Your task to perform on an android device: turn on translation in the chrome app Image 0: 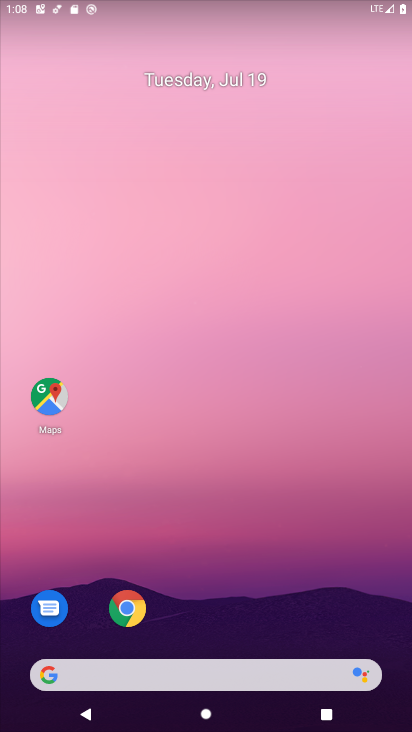
Step 0: drag from (224, 629) to (169, 48)
Your task to perform on an android device: turn on translation in the chrome app Image 1: 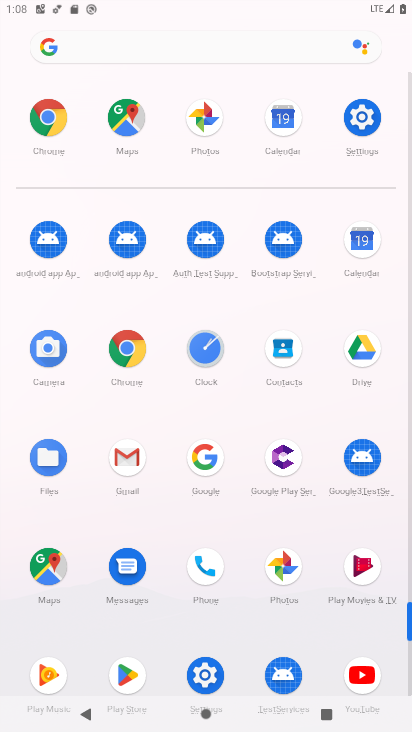
Step 1: click (133, 363)
Your task to perform on an android device: turn on translation in the chrome app Image 2: 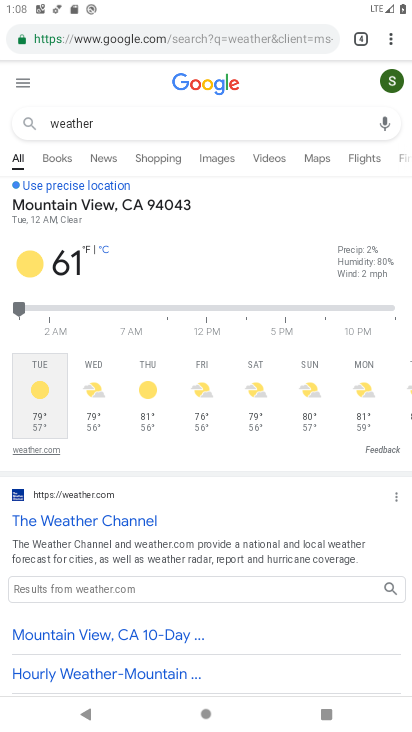
Step 2: click (387, 45)
Your task to perform on an android device: turn on translation in the chrome app Image 3: 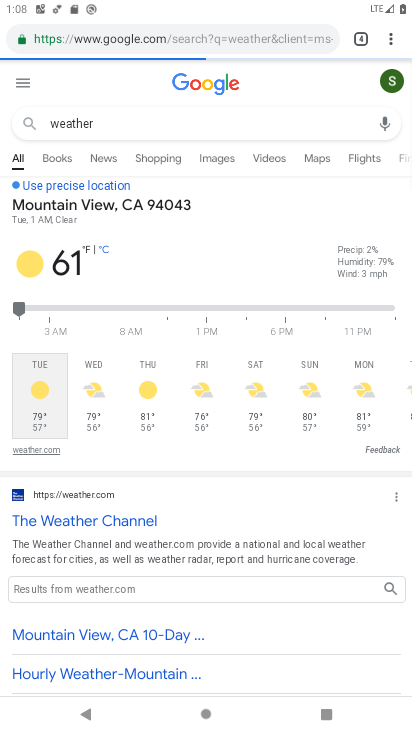
Step 3: click (391, 41)
Your task to perform on an android device: turn on translation in the chrome app Image 4: 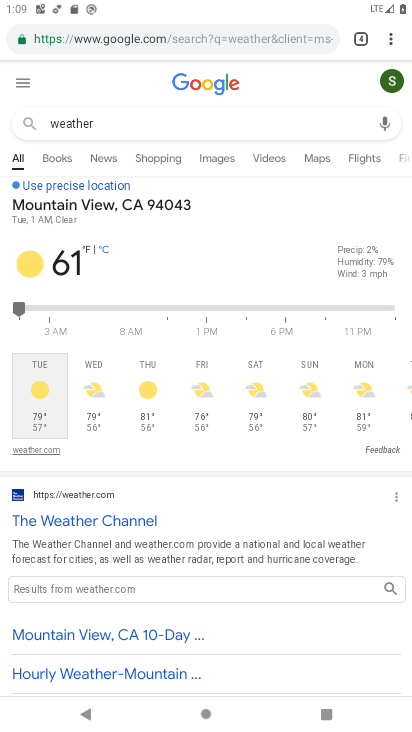
Step 4: click (388, 43)
Your task to perform on an android device: turn on translation in the chrome app Image 5: 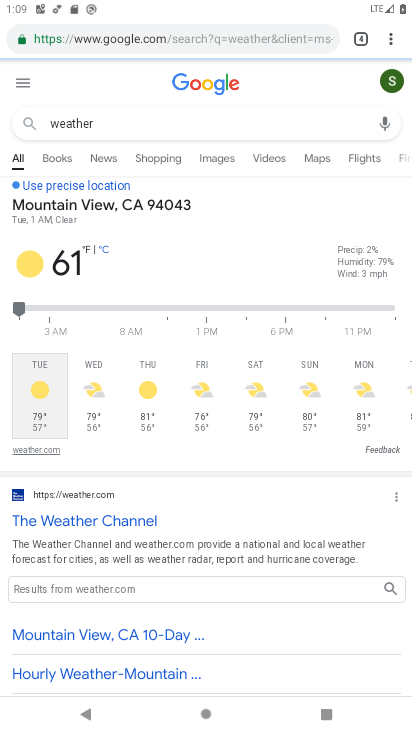
Step 5: click (392, 37)
Your task to perform on an android device: turn on translation in the chrome app Image 6: 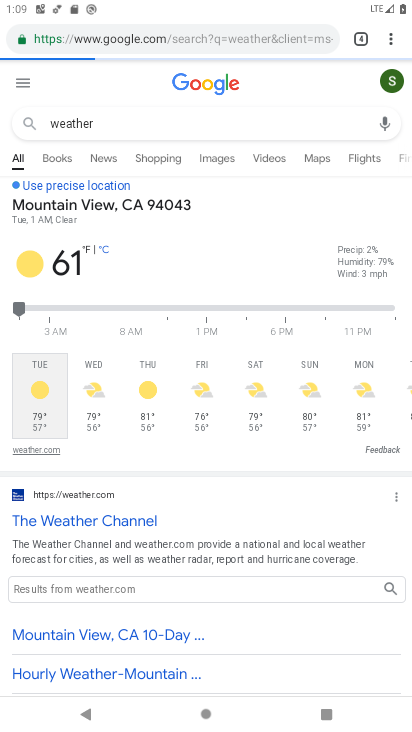
Step 6: click (392, 37)
Your task to perform on an android device: turn on translation in the chrome app Image 7: 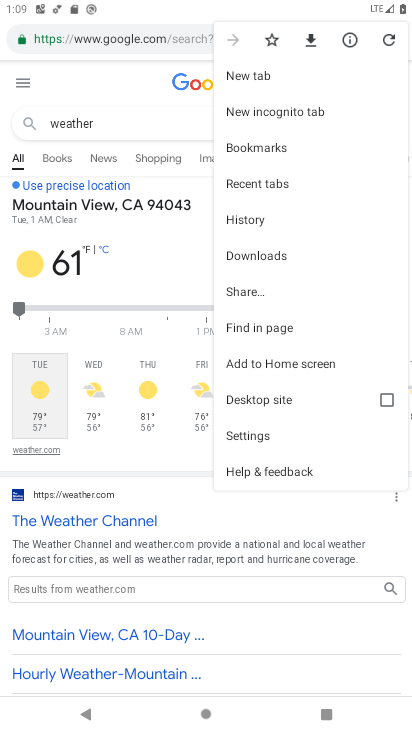
Step 7: click (264, 434)
Your task to perform on an android device: turn on translation in the chrome app Image 8: 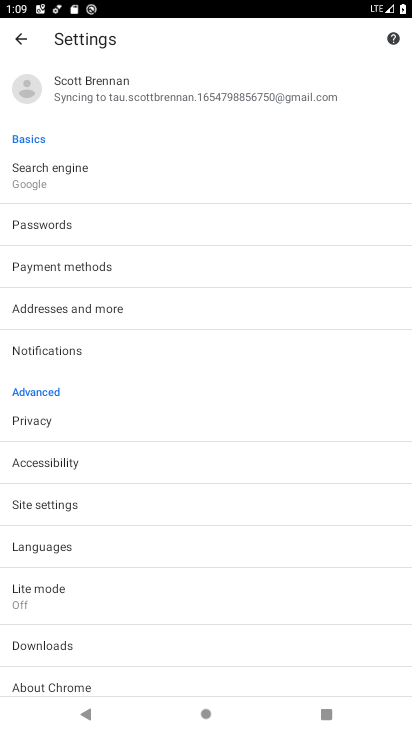
Step 8: click (66, 546)
Your task to perform on an android device: turn on translation in the chrome app Image 9: 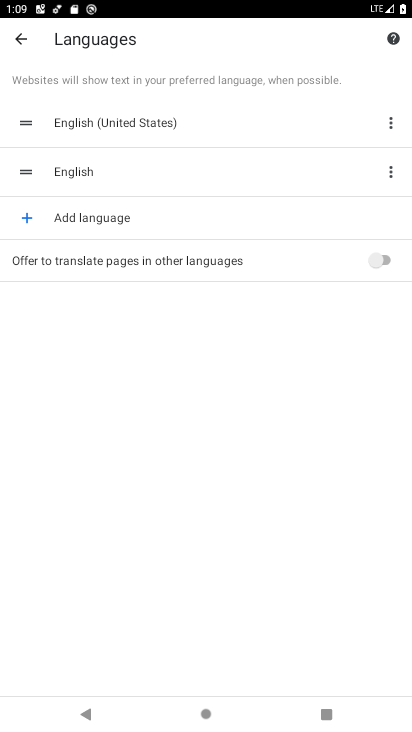
Step 9: click (365, 262)
Your task to perform on an android device: turn on translation in the chrome app Image 10: 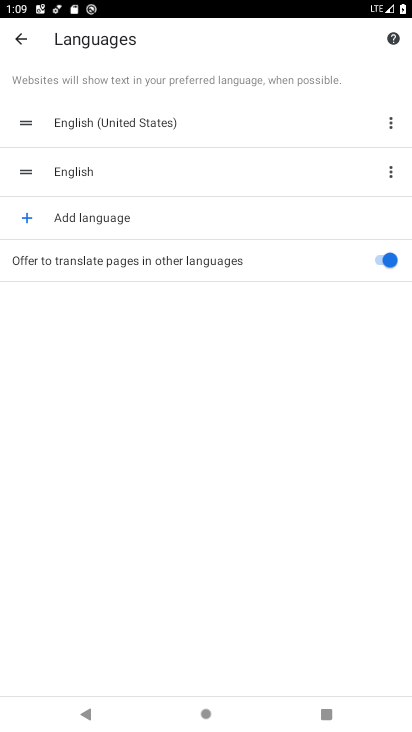
Step 10: task complete